Your task to perform on an android device: turn on priority inbox in the gmail app Image 0: 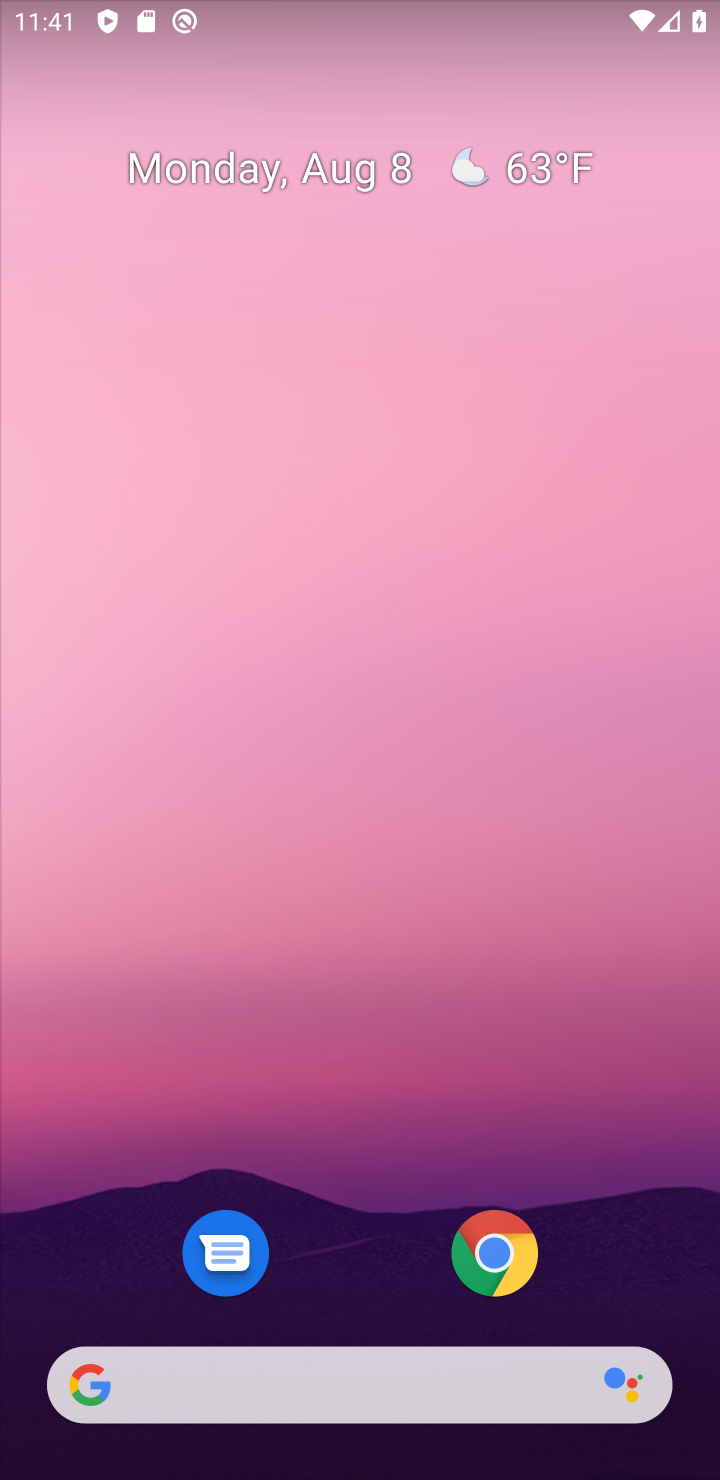
Step 0: drag from (635, 1141) to (288, 30)
Your task to perform on an android device: turn on priority inbox in the gmail app Image 1: 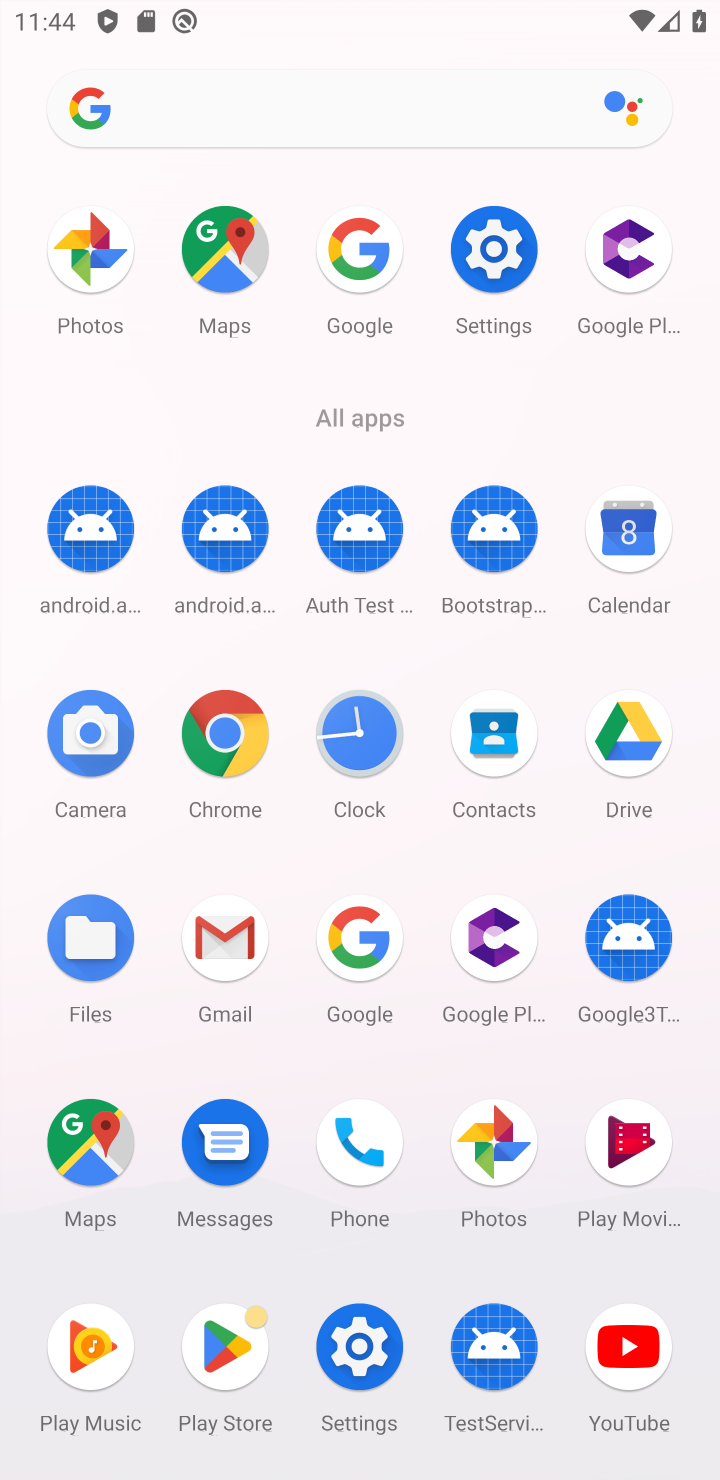
Step 1: click (219, 981)
Your task to perform on an android device: turn on priority inbox in the gmail app Image 2: 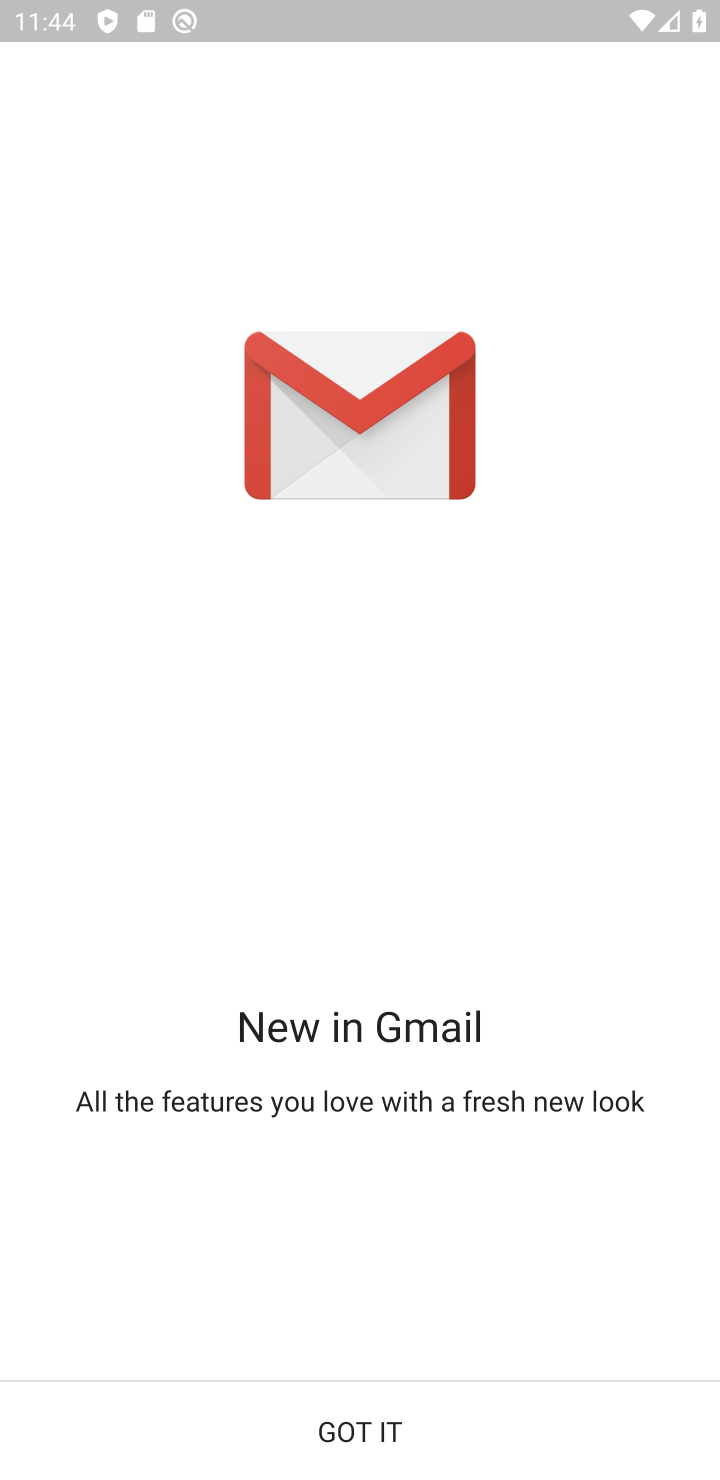
Step 2: click (368, 1426)
Your task to perform on an android device: turn on priority inbox in the gmail app Image 3: 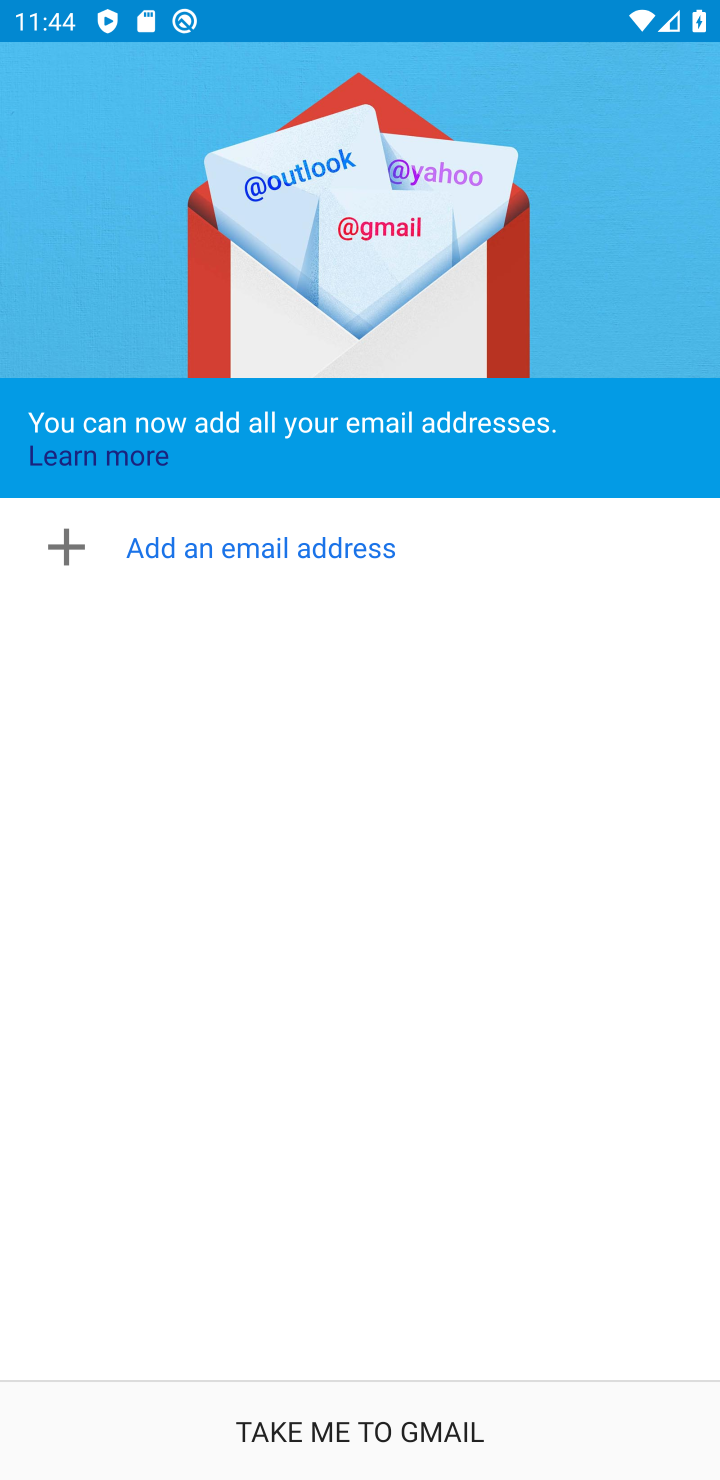
Step 3: click (368, 1426)
Your task to perform on an android device: turn on priority inbox in the gmail app Image 4: 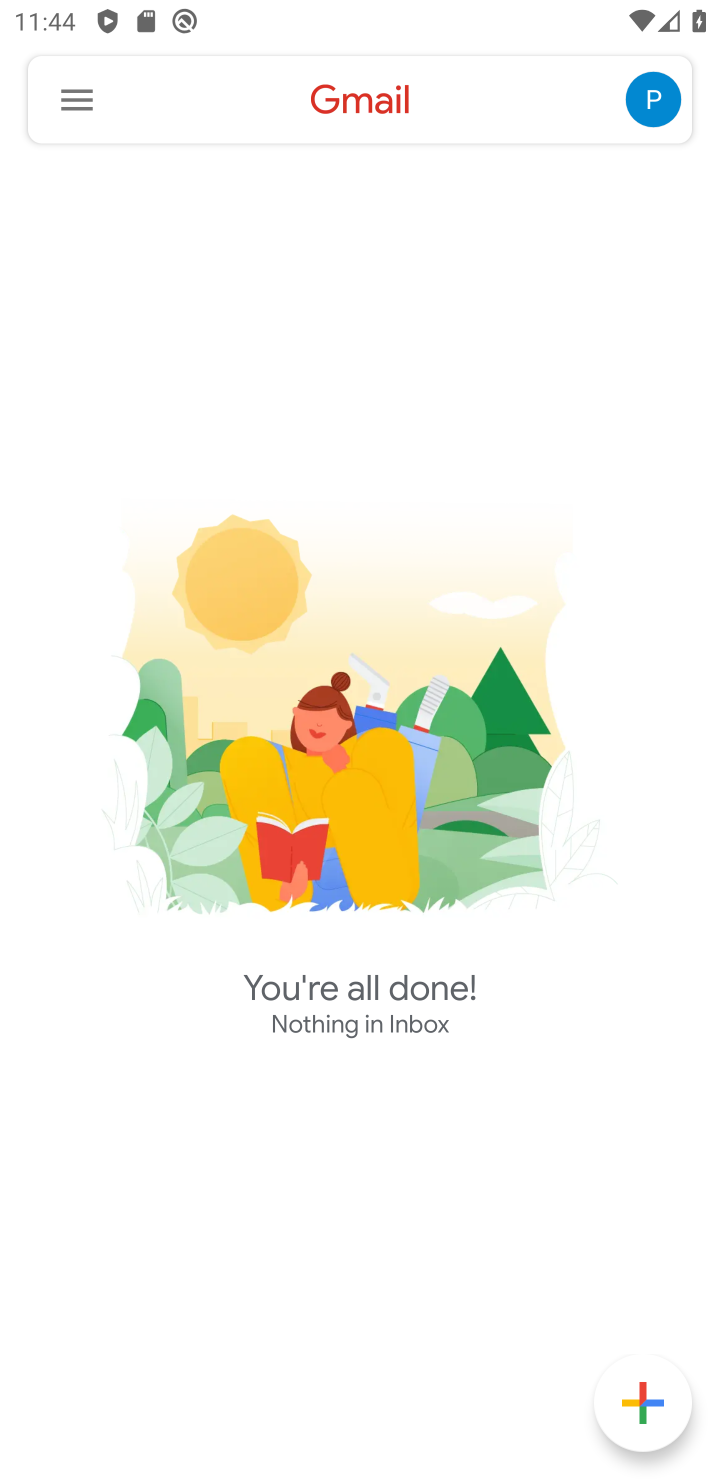
Step 4: click (89, 102)
Your task to perform on an android device: turn on priority inbox in the gmail app Image 5: 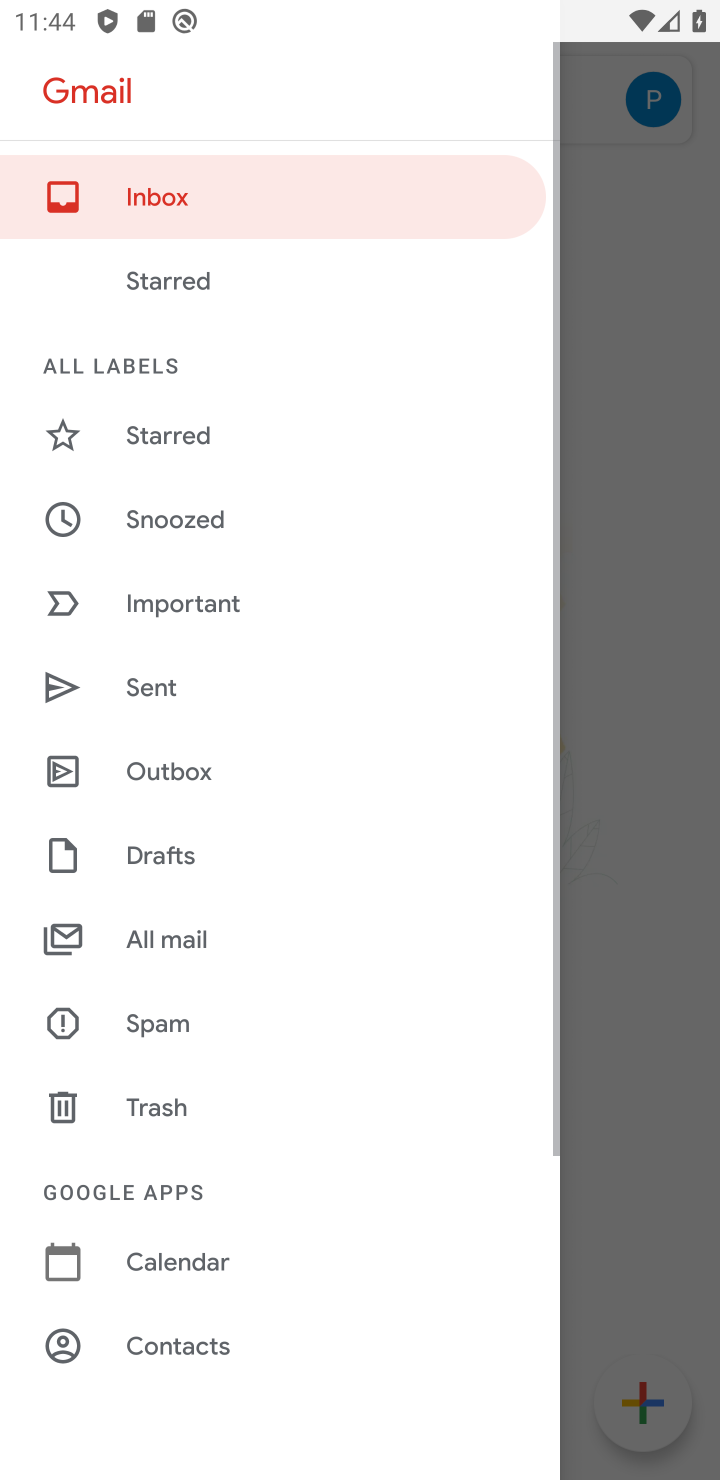
Step 5: drag from (224, 1310) to (188, 125)
Your task to perform on an android device: turn on priority inbox in the gmail app Image 6: 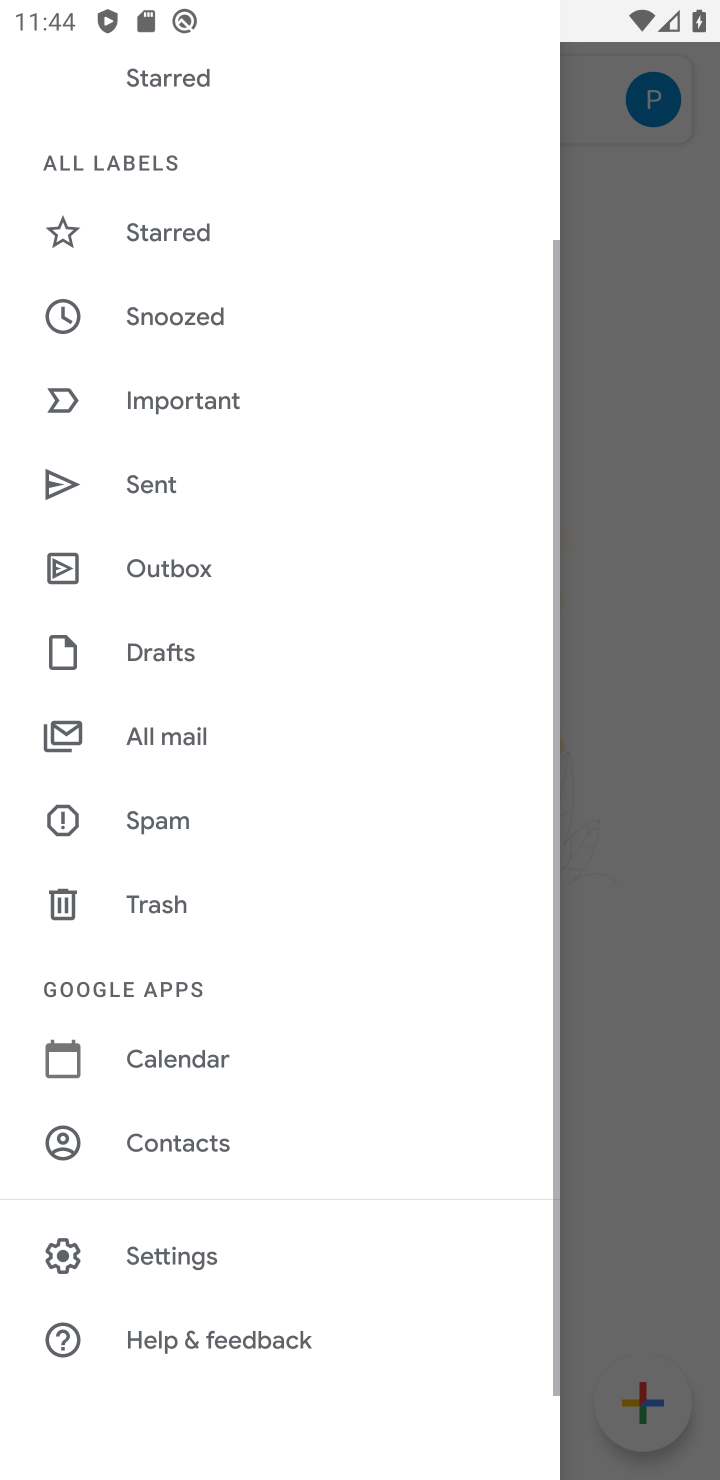
Step 6: click (159, 1256)
Your task to perform on an android device: turn on priority inbox in the gmail app Image 7: 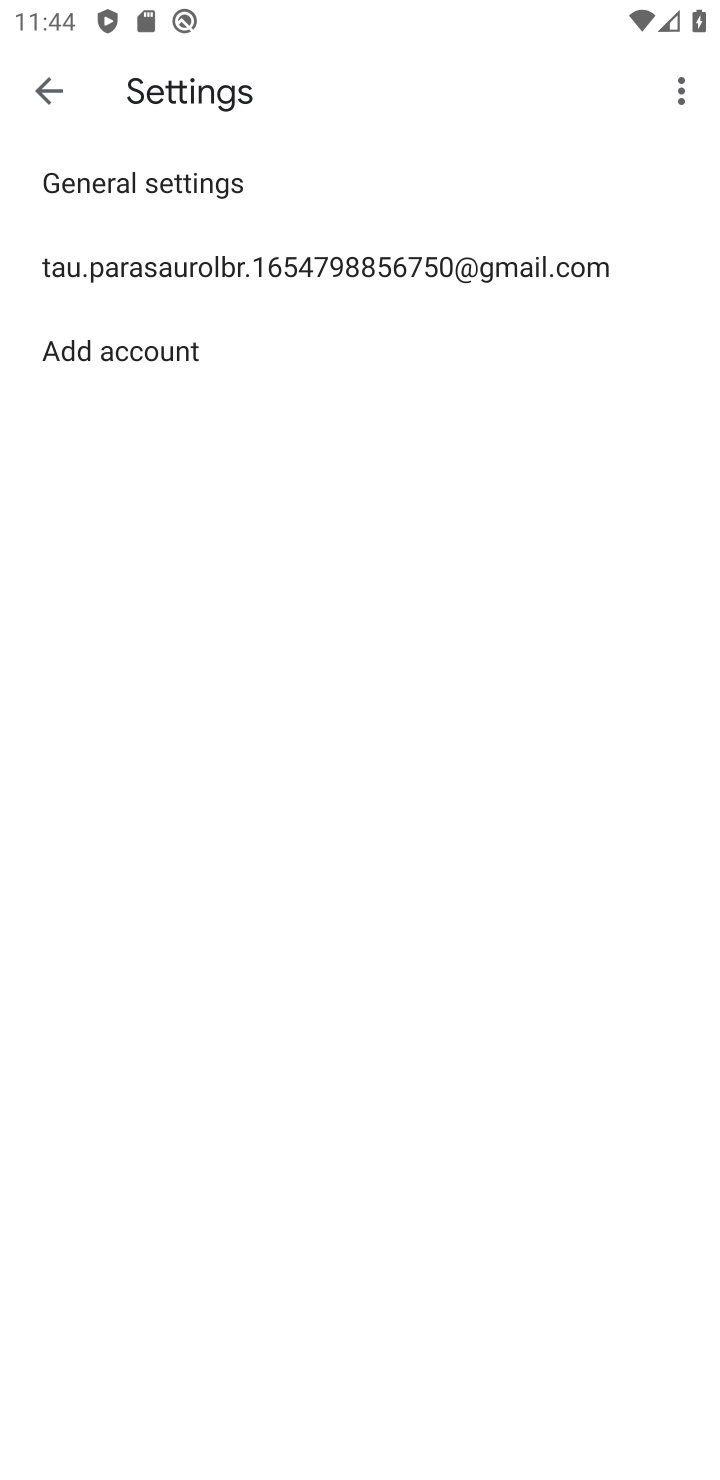
Step 7: click (207, 265)
Your task to perform on an android device: turn on priority inbox in the gmail app Image 8: 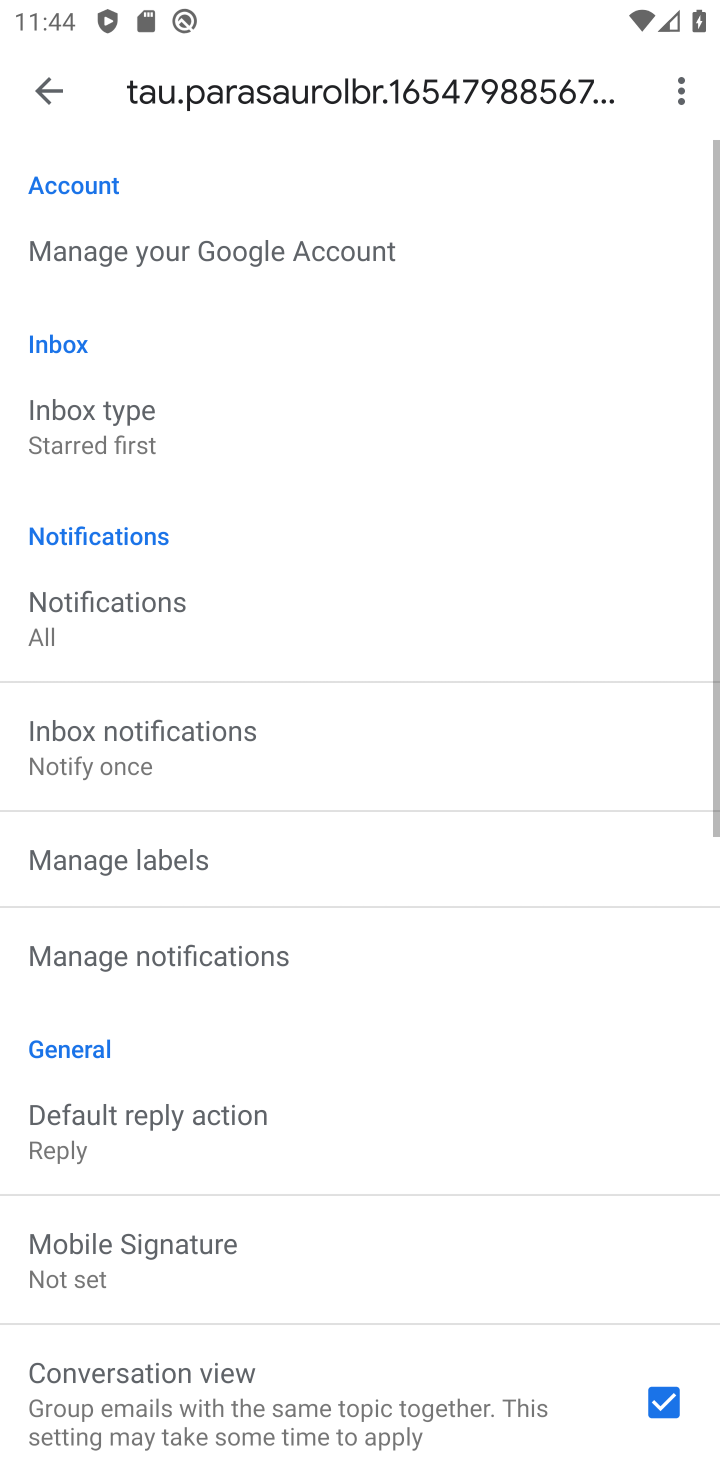
Step 8: click (167, 426)
Your task to perform on an android device: turn on priority inbox in the gmail app Image 9: 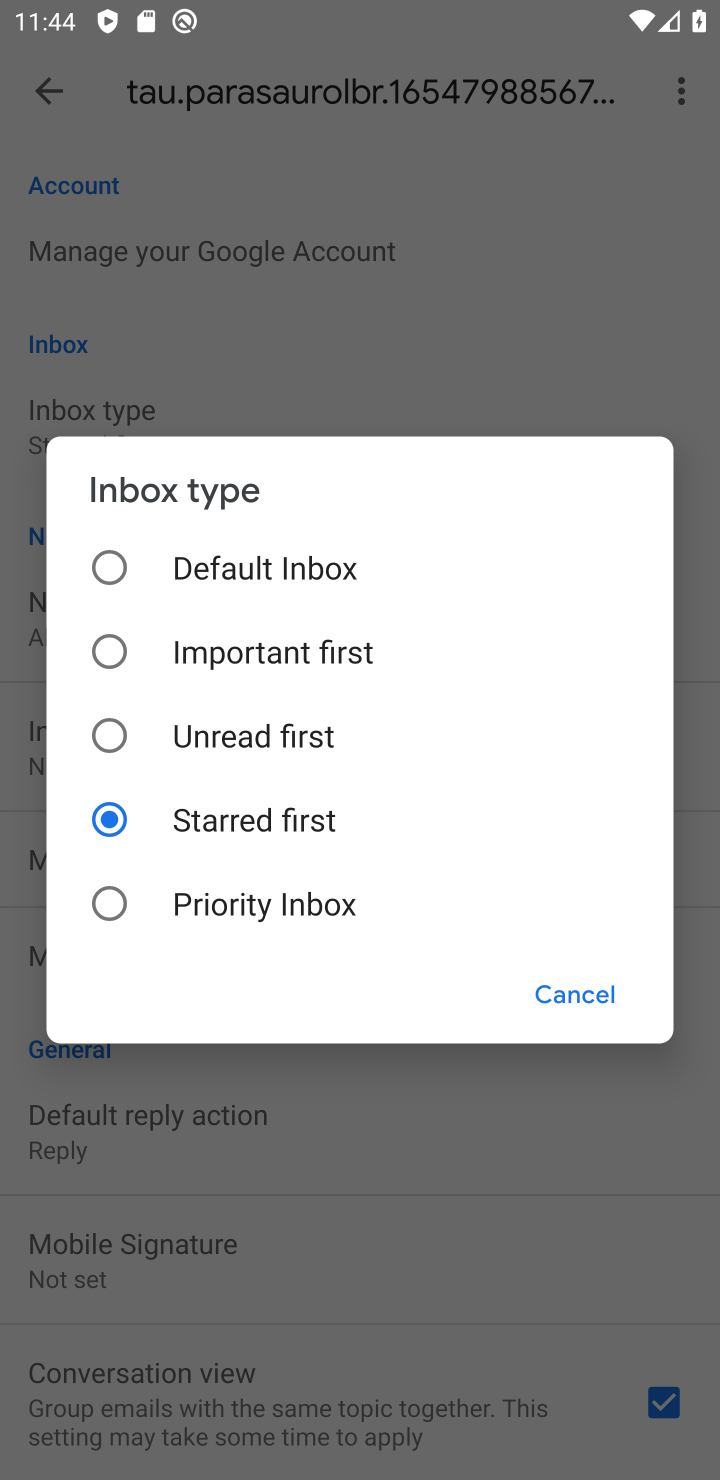
Step 9: click (118, 903)
Your task to perform on an android device: turn on priority inbox in the gmail app Image 10: 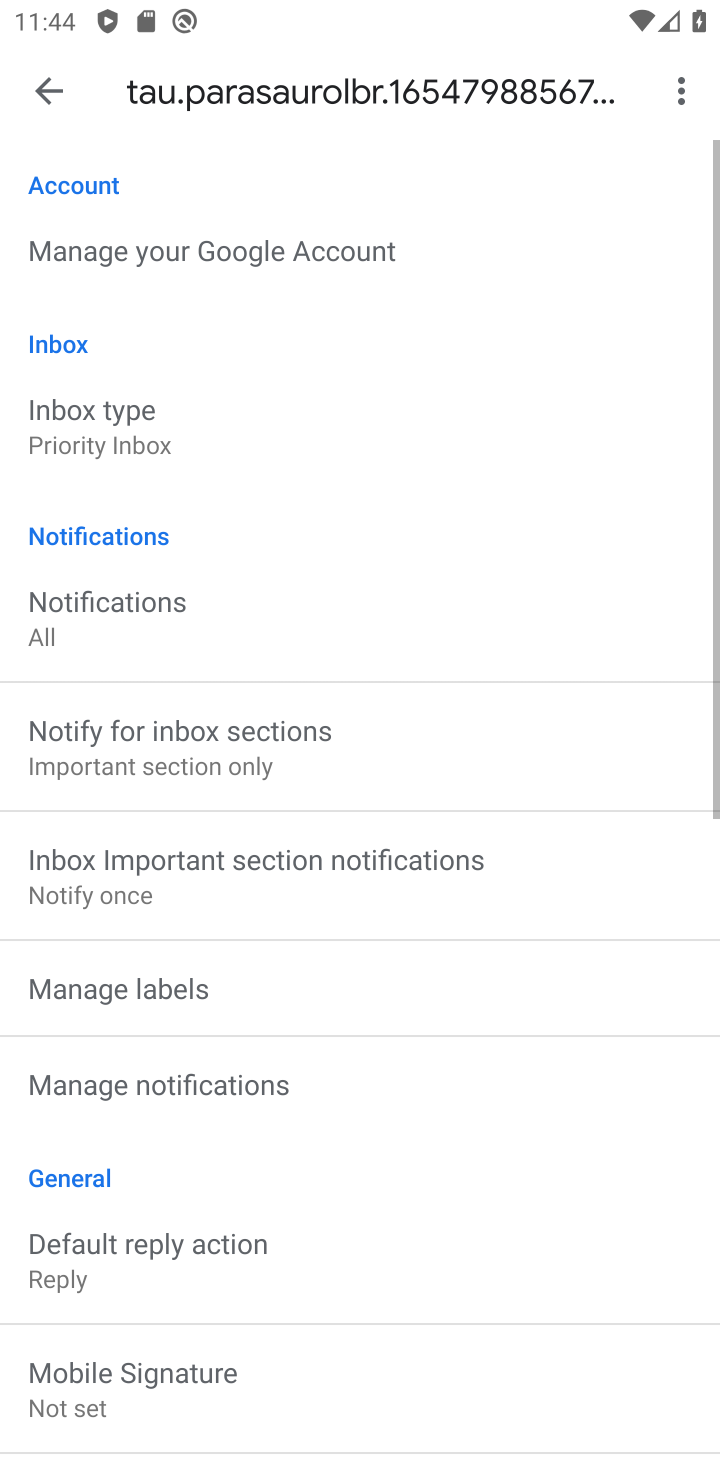
Step 10: task complete